Your task to perform on an android device: Clear the shopping cart on amazon. Image 0: 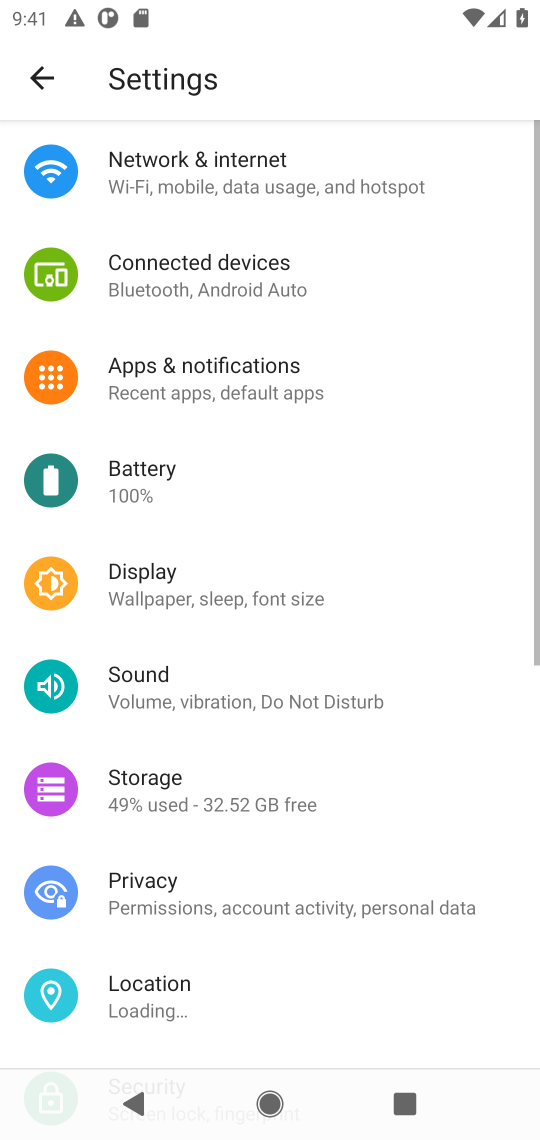
Step 0: click (376, 883)
Your task to perform on an android device: Clear the shopping cart on amazon. Image 1: 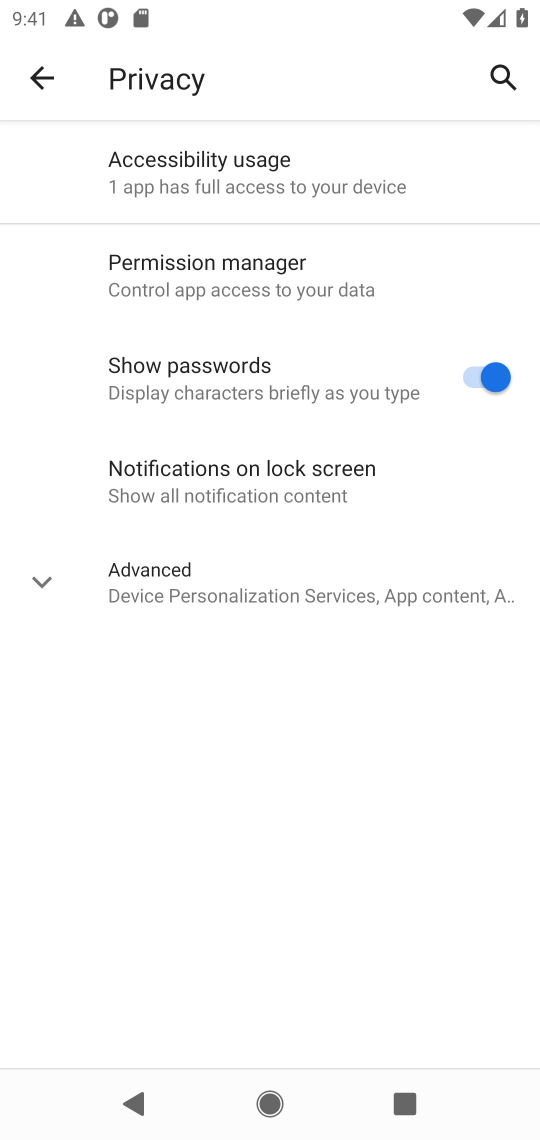
Step 1: press home button
Your task to perform on an android device: Clear the shopping cart on amazon. Image 2: 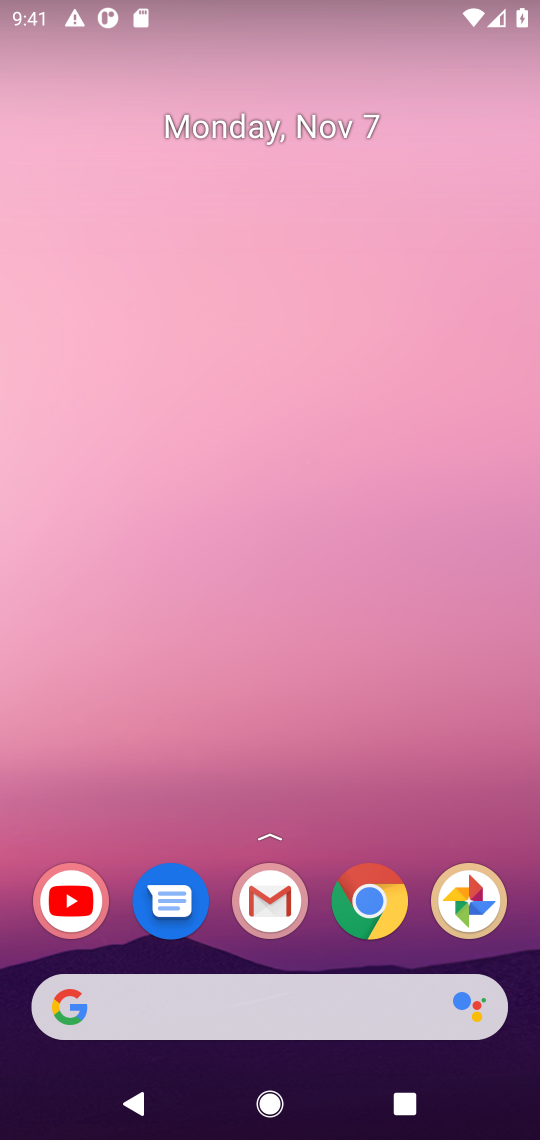
Step 2: click (344, 905)
Your task to perform on an android device: Clear the shopping cart on amazon. Image 3: 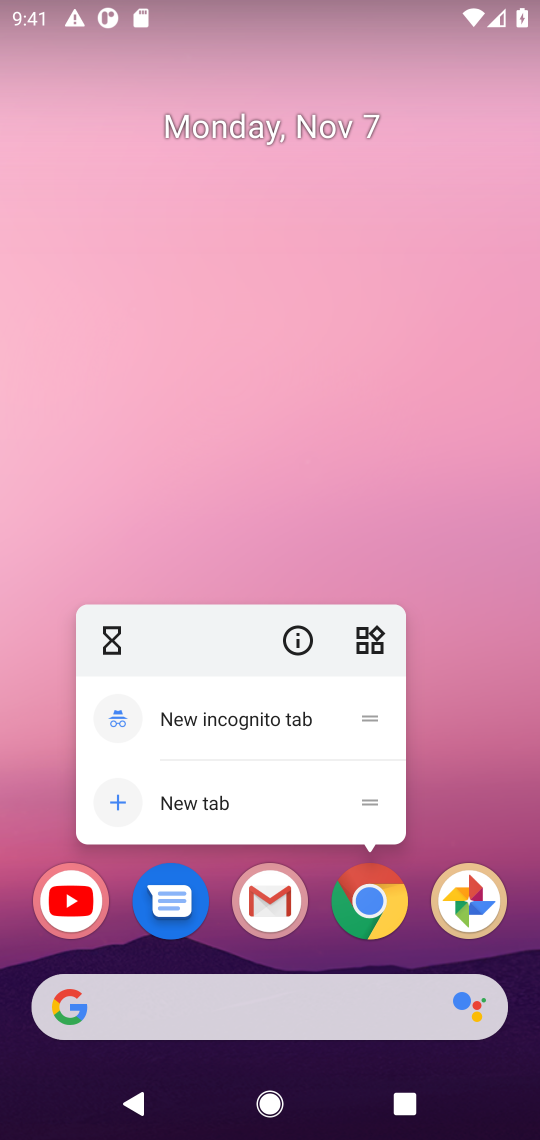
Step 3: click (361, 888)
Your task to perform on an android device: Clear the shopping cart on amazon. Image 4: 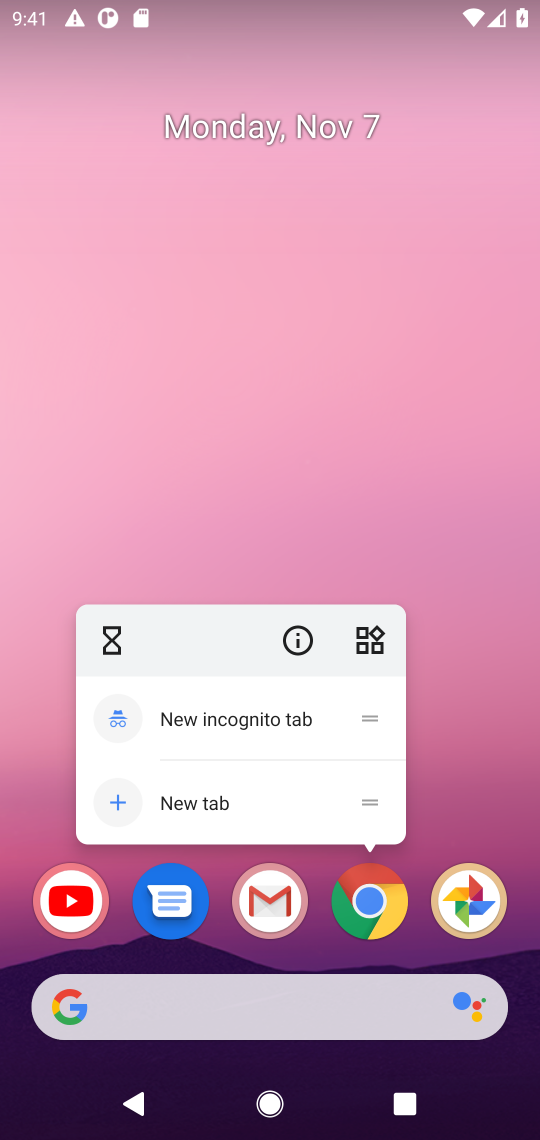
Step 4: click (361, 888)
Your task to perform on an android device: Clear the shopping cart on amazon. Image 5: 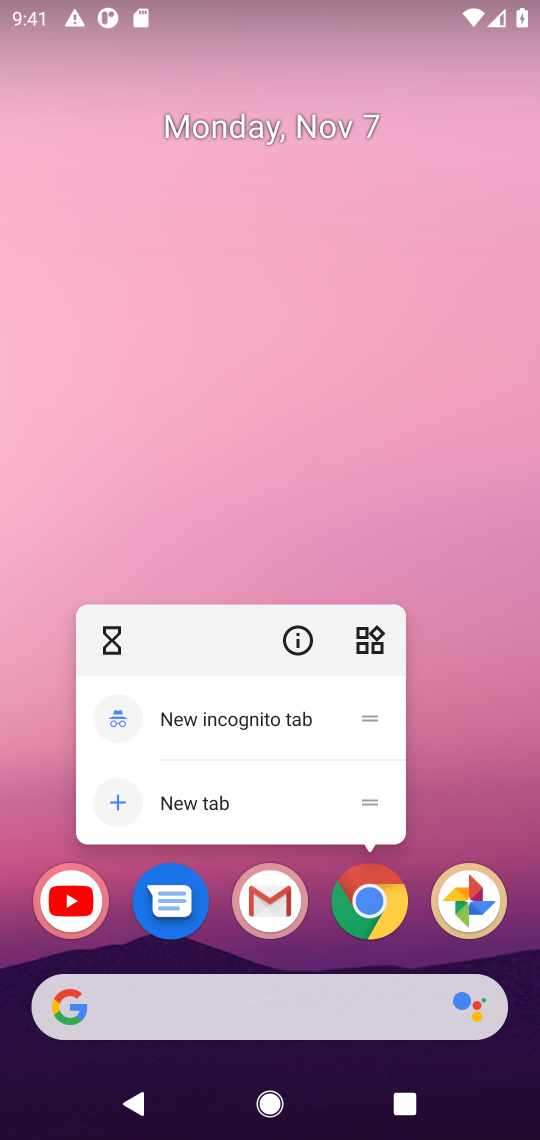
Step 5: click (361, 888)
Your task to perform on an android device: Clear the shopping cart on amazon. Image 6: 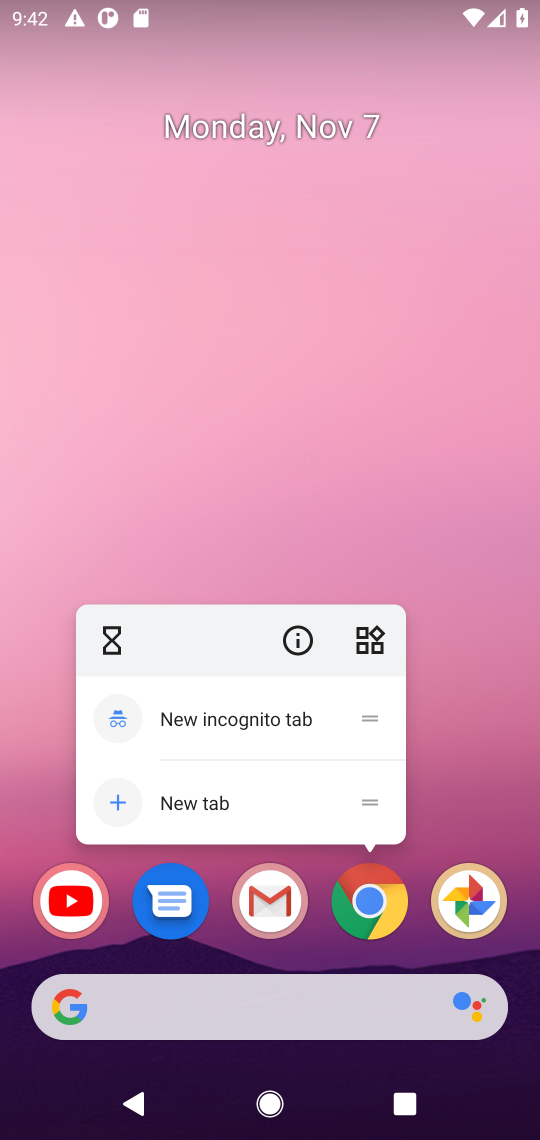
Step 6: click (382, 905)
Your task to perform on an android device: Clear the shopping cart on amazon. Image 7: 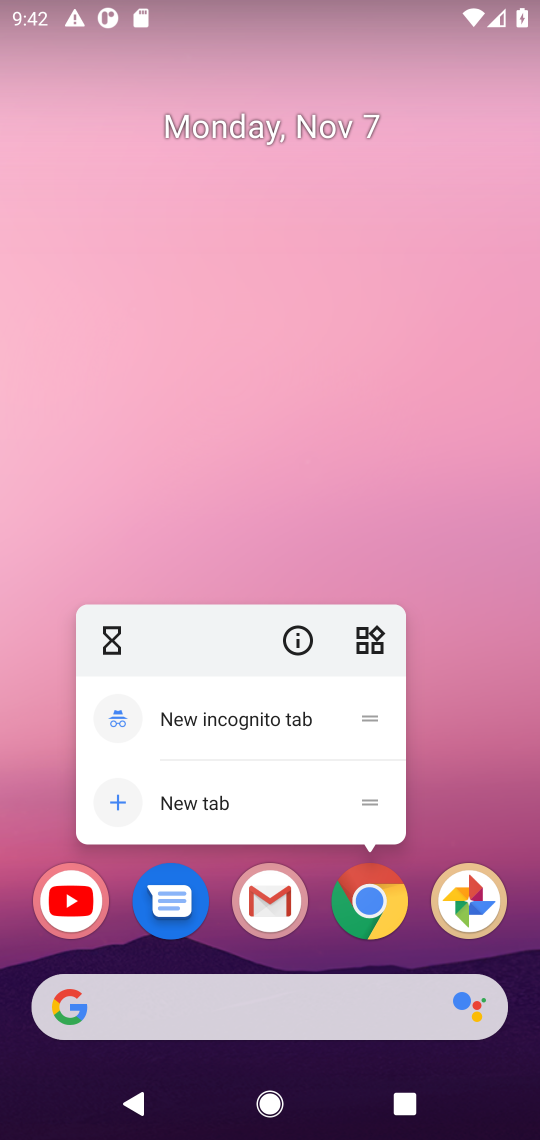
Step 7: click (382, 905)
Your task to perform on an android device: Clear the shopping cart on amazon. Image 8: 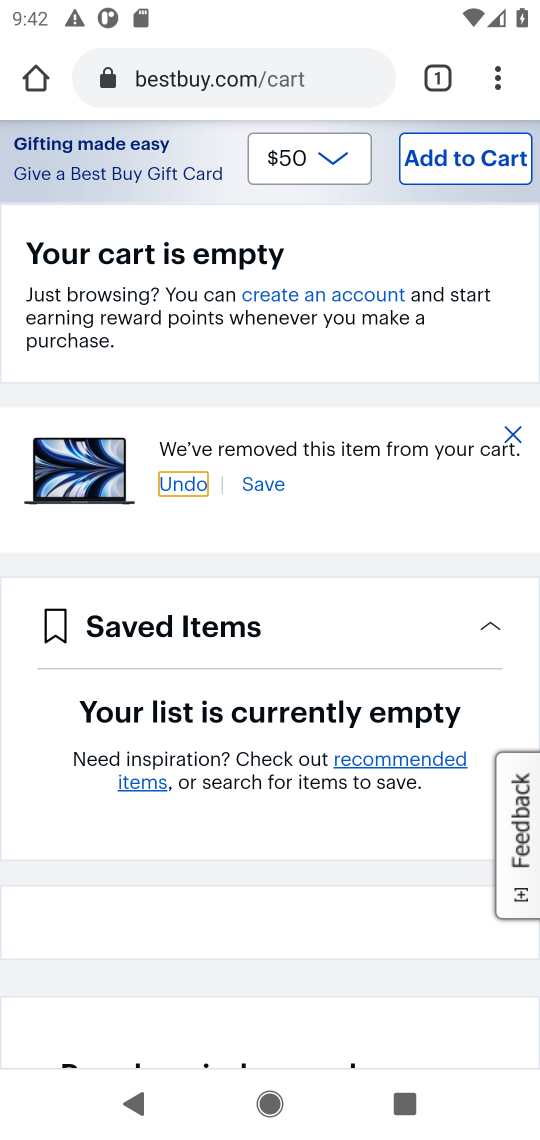
Step 8: click (244, 76)
Your task to perform on an android device: Clear the shopping cart on amazon. Image 9: 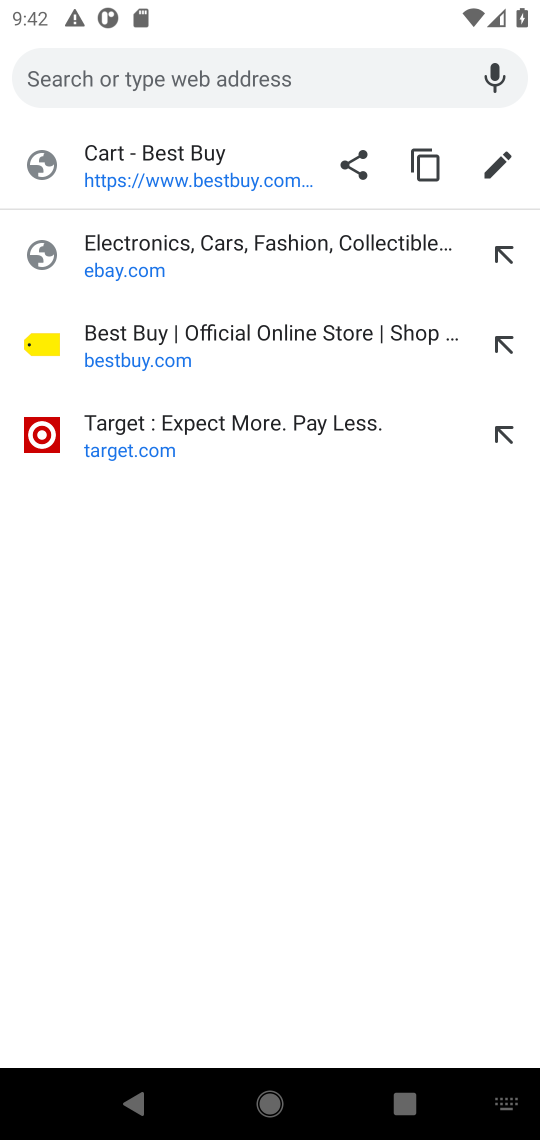
Step 9: type "amazon"
Your task to perform on an android device: Clear the shopping cart on amazon. Image 10: 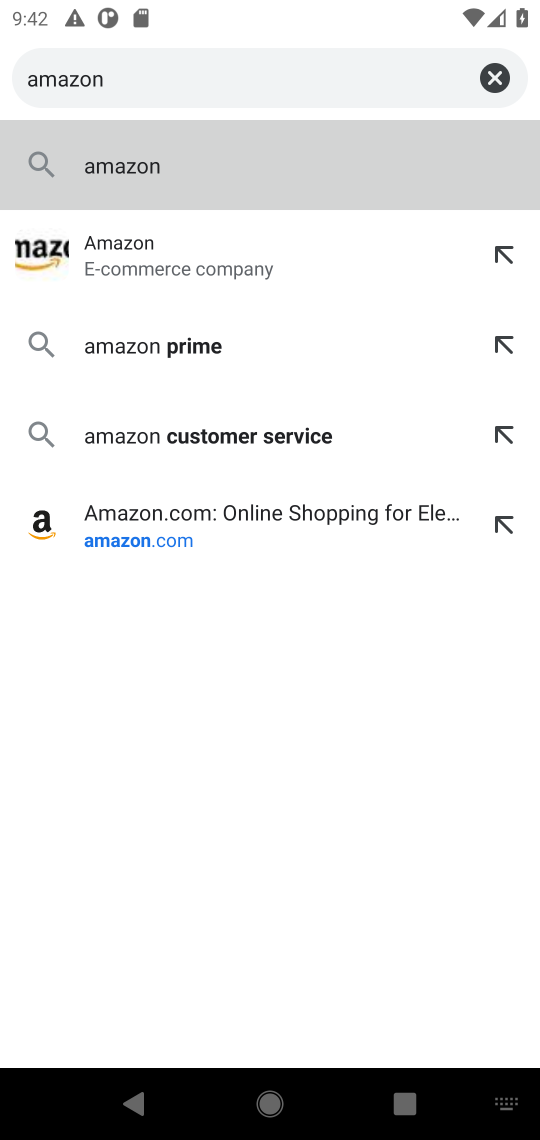
Step 10: click (258, 506)
Your task to perform on an android device: Clear the shopping cart on amazon. Image 11: 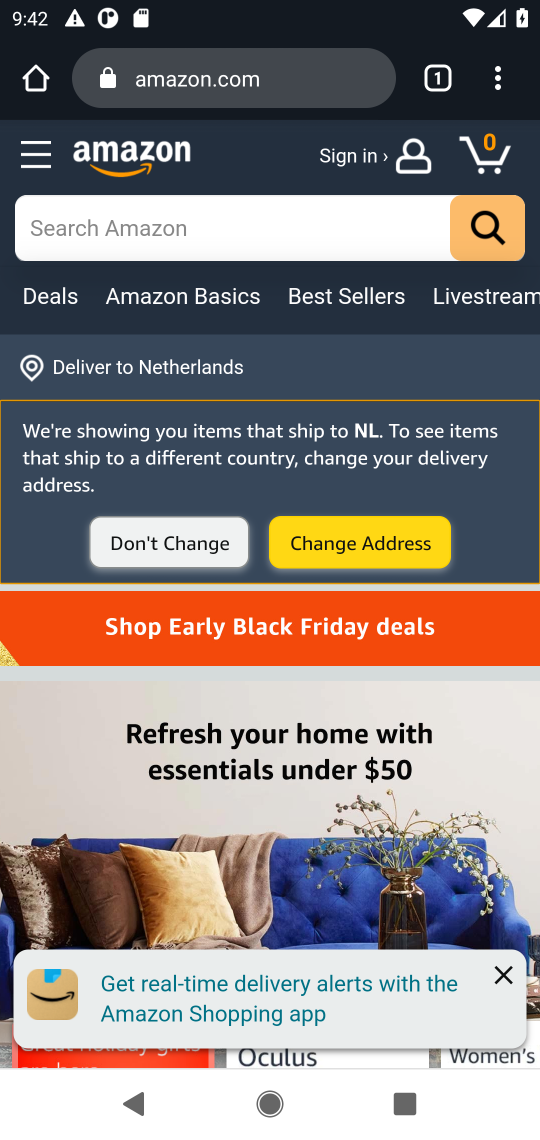
Step 11: click (325, 212)
Your task to perform on an android device: Clear the shopping cart on amazon. Image 12: 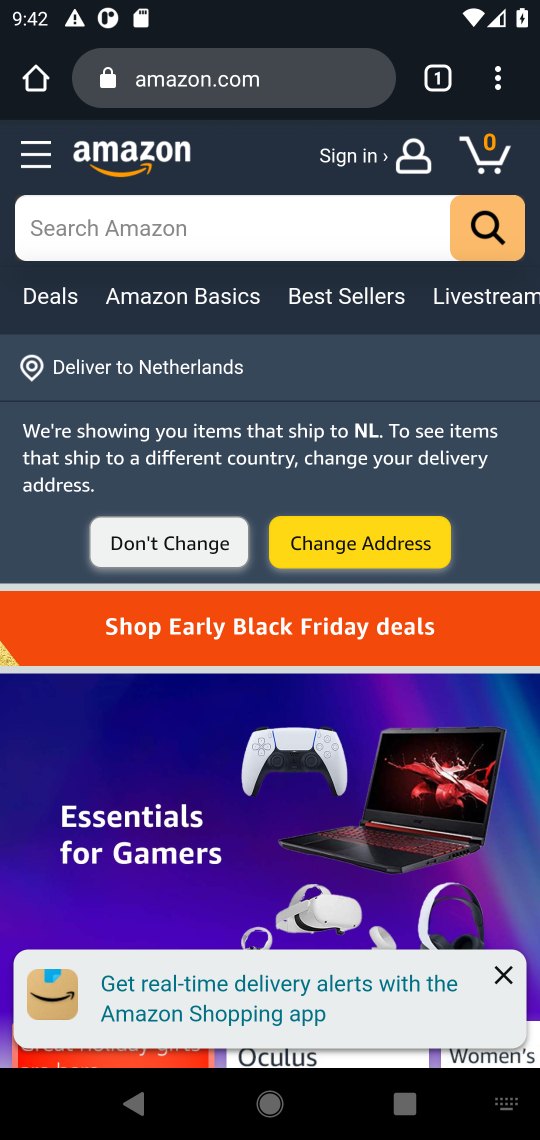
Step 12: click (490, 154)
Your task to perform on an android device: Clear the shopping cart on amazon. Image 13: 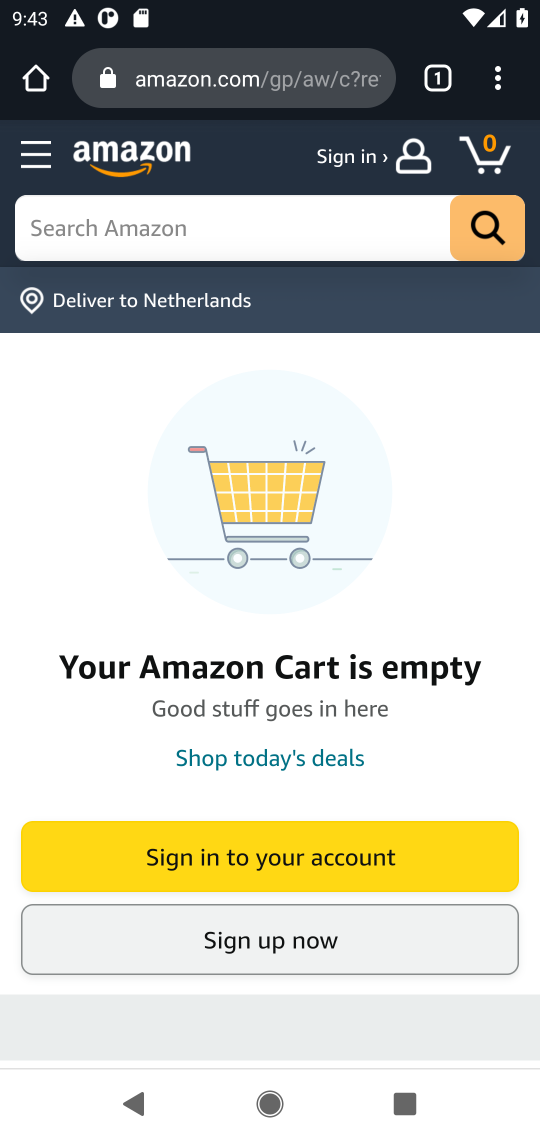
Step 13: task complete